Your task to perform on an android device: toggle pop-ups in chrome Image 0: 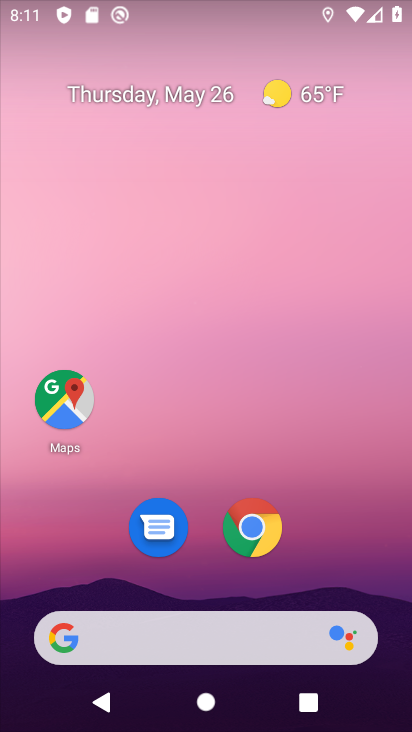
Step 0: drag from (358, 497) to (293, 16)
Your task to perform on an android device: toggle pop-ups in chrome Image 1: 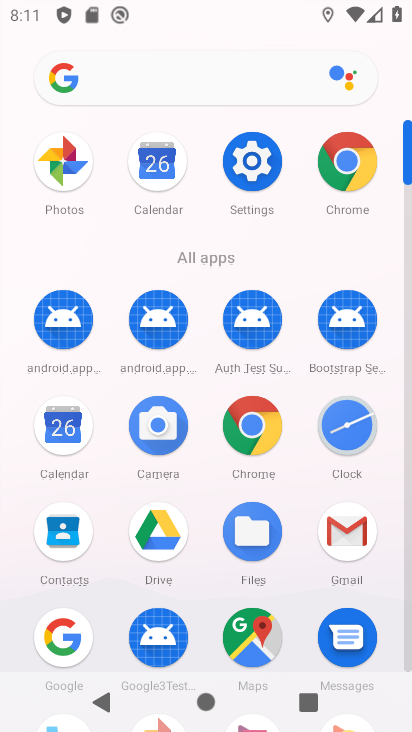
Step 1: click (336, 158)
Your task to perform on an android device: toggle pop-ups in chrome Image 2: 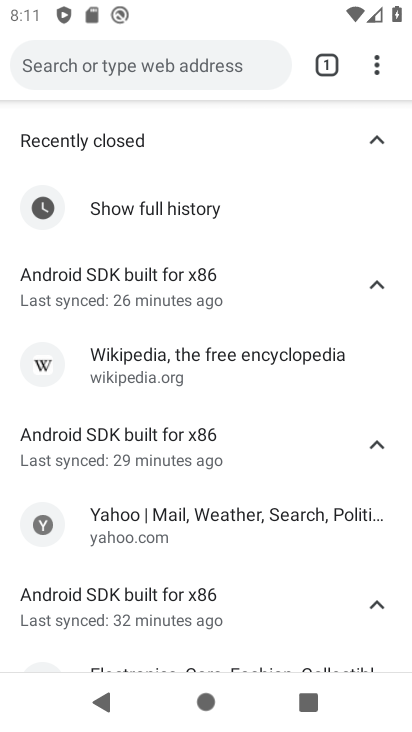
Step 2: drag from (369, 75) to (145, 538)
Your task to perform on an android device: toggle pop-ups in chrome Image 3: 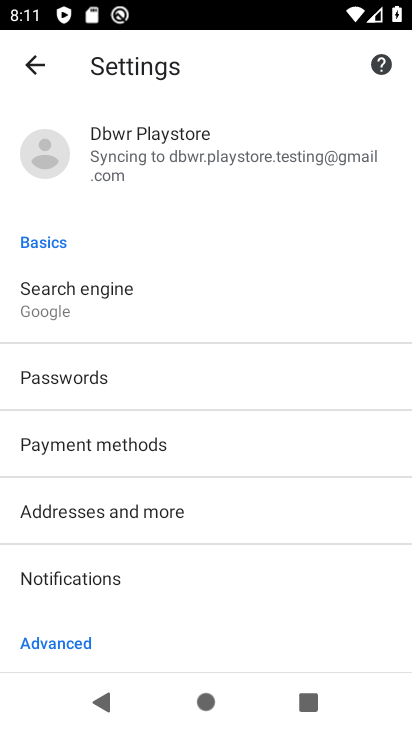
Step 3: drag from (121, 554) to (155, 181)
Your task to perform on an android device: toggle pop-ups in chrome Image 4: 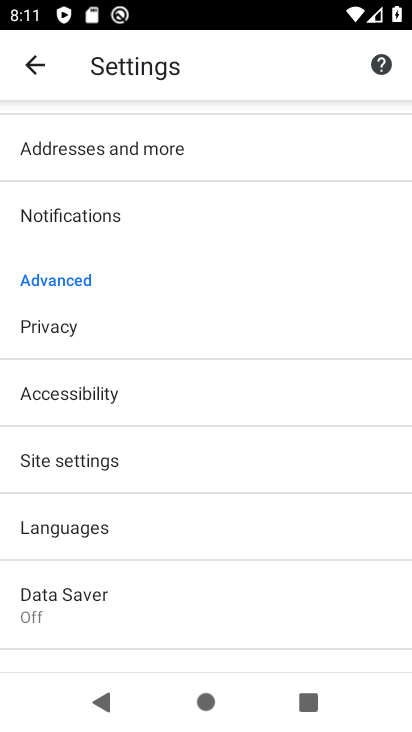
Step 4: click (92, 459)
Your task to perform on an android device: toggle pop-ups in chrome Image 5: 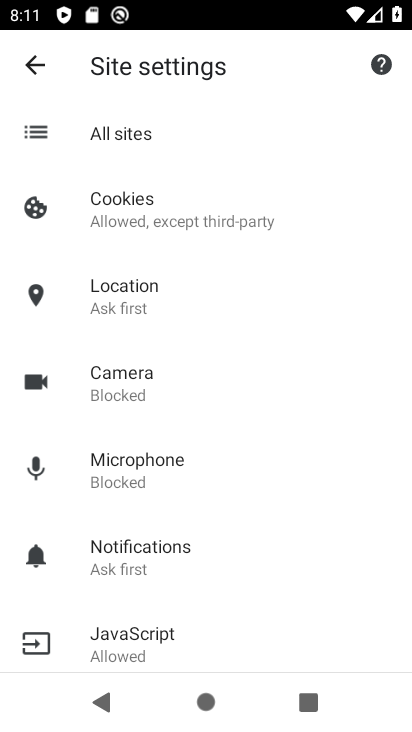
Step 5: drag from (131, 578) to (162, 188)
Your task to perform on an android device: toggle pop-ups in chrome Image 6: 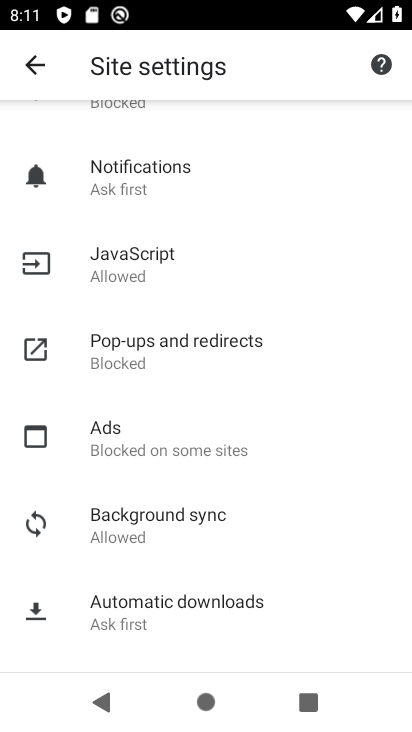
Step 6: click (129, 344)
Your task to perform on an android device: toggle pop-ups in chrome Image 7: 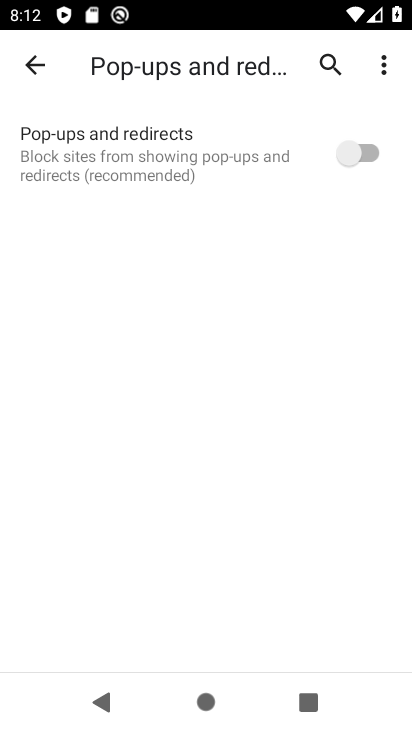
Step 7: click (369, 150)
Your task to perform on an android device: toggle pop-ups in chrome Image 8: 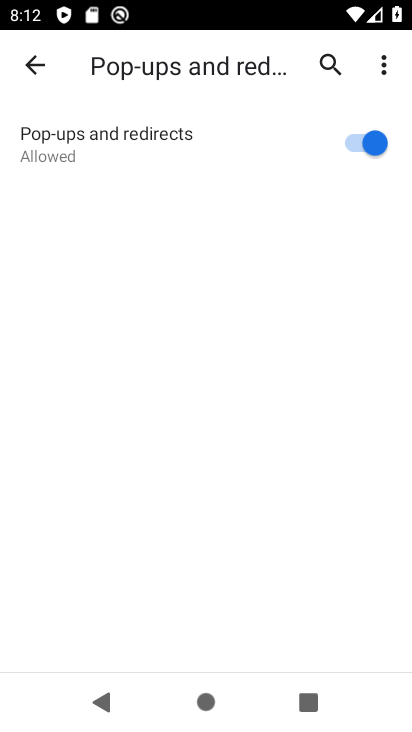
Step 8: task complete